Your task to perform on an android device: delete browsing data in the chrome app Image 0: 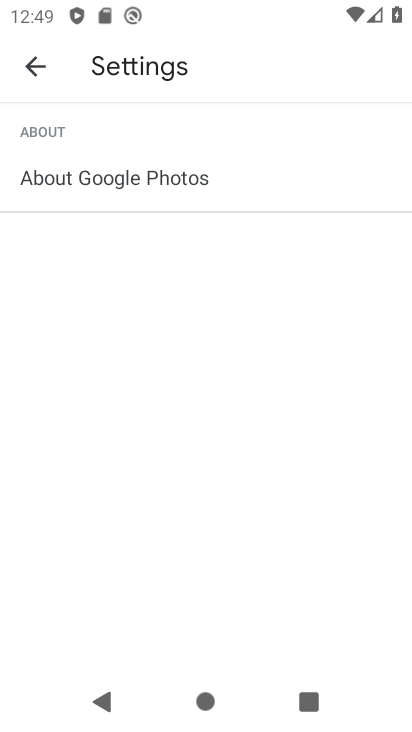
Step 0: press home button
Your task to perform on an android device: delete browsing data in the chrome app Image 1: 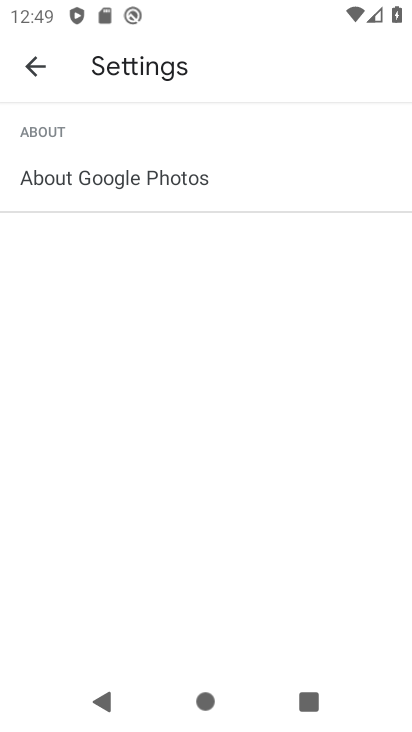
Step 1: press home button
Your task to perform on an android device: delete browsing data in the chrome app Image 2: 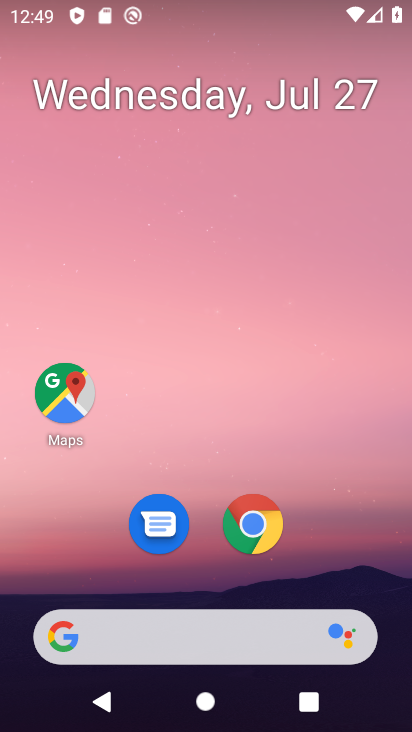
Step 2: click (261, 515)
Your task to perform on an android device: delete browsing data in the chrome app Image 3: 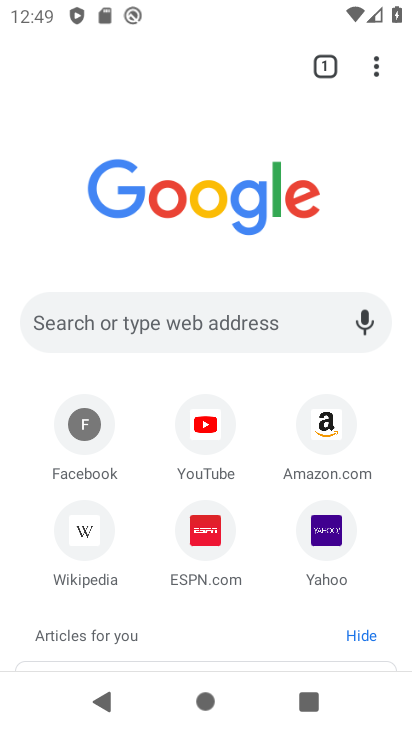
Step 3: click (378, 61)
Your task to perform on an android device: delete browsing data in the chrome app Image 4: 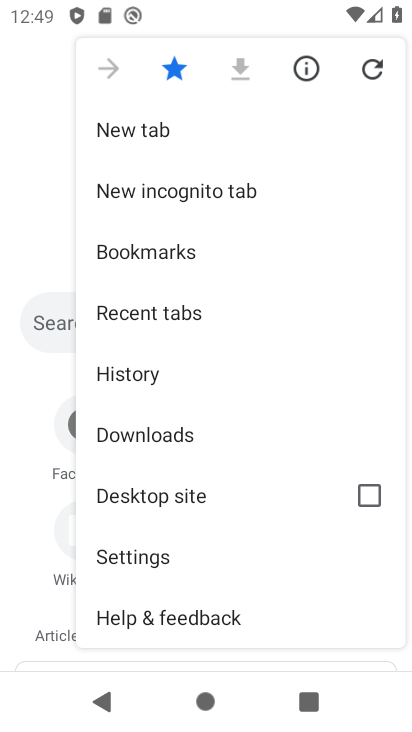
Step 4: click (130, 374)
Your task to perform on an android device: delete browsing data in the chrome app Image 5: 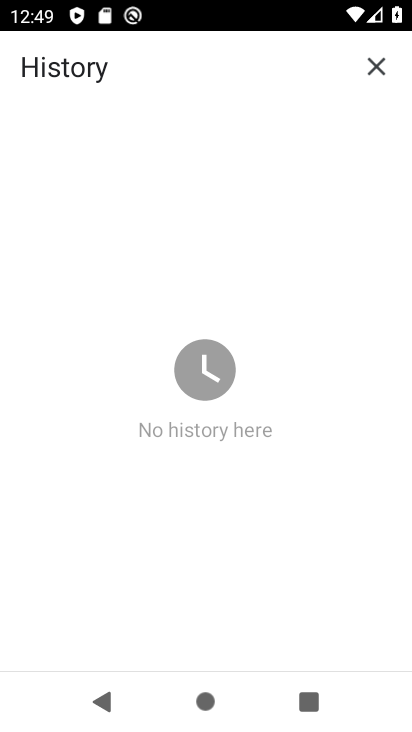
Step 5: task complete